Your task to perform on an android device: change text size in settings app Image 0: 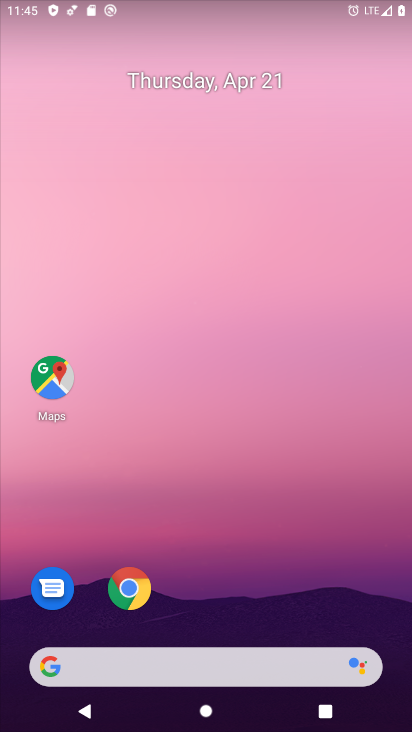
Step 0: drag from (285, 669) to (266, 265)
Your task to perform on an android device: change text size in settings app Image 1: 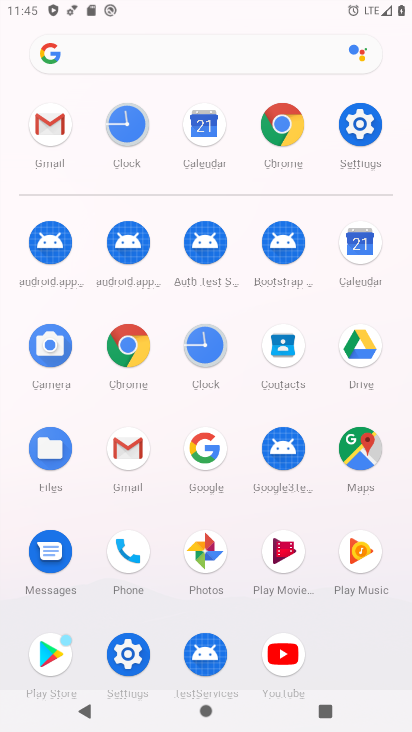
Step 1: click (367, 124)
Your task to perform on an android device: change text size in settings app Image 2: 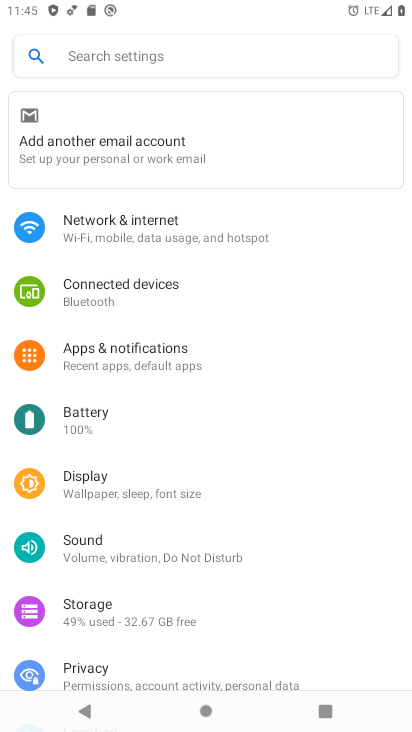
Step 2: click (165, 56)
Your task to perform on an android device: change text size in settings app Image 3: 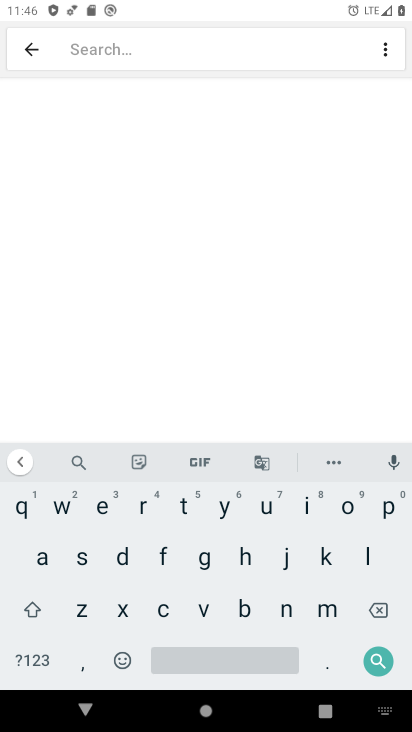
Step 3: click (75, 561)
Your task to perform on an android device: change text size in settings app Image 4: 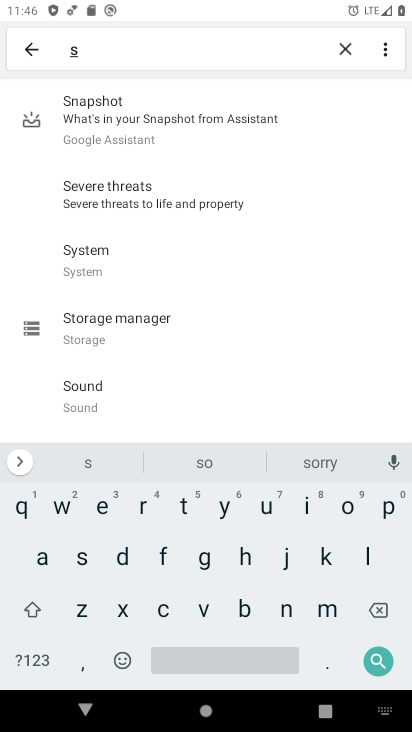
Step 4: click (302, 509)
Your task to perform on an android device: change text size in settings app Image 5: 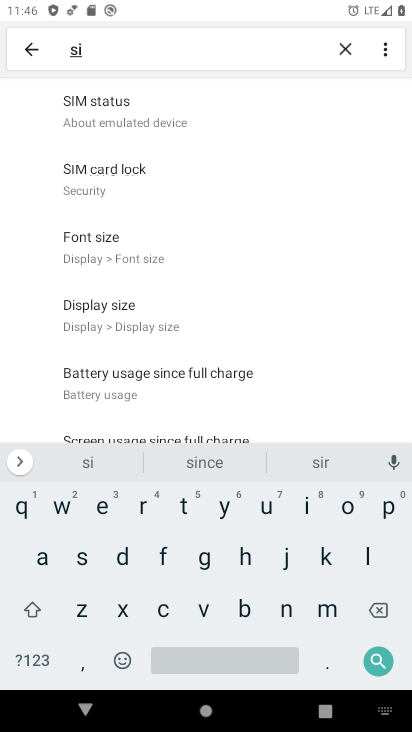
Step 5: click (79, 606)
Your task to perform on an android device: change text size in settings app Image 6: 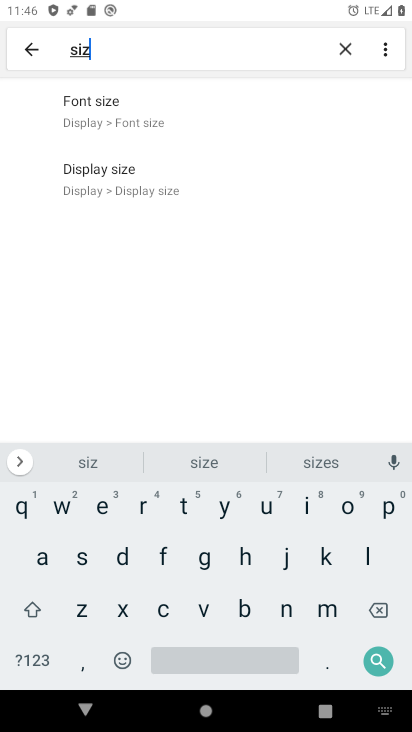
Step 6: click (122, 128)
Your task to perform on an android device: change text size in settings app Image 7: 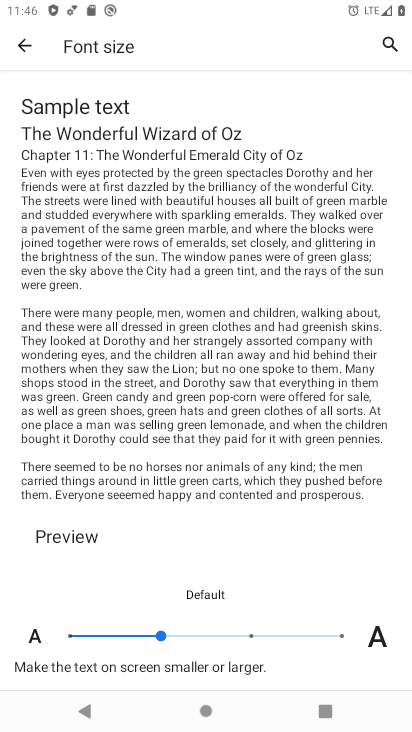
Step 7: click (112, 639)
Your task to perform on an android device: change text size in settings app Image 8: 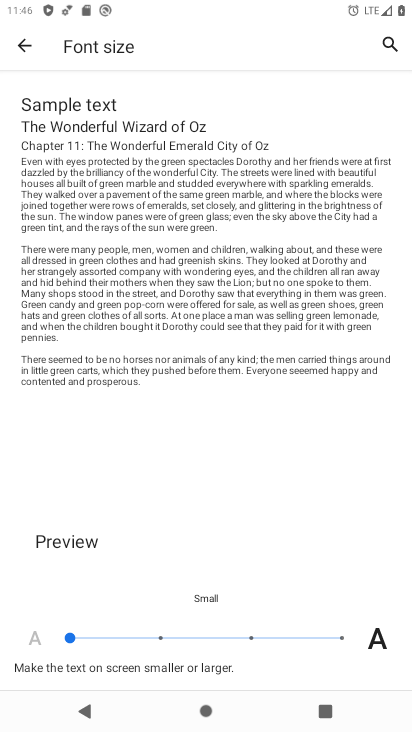
Step 8: task complete